Your task to perform on an android device: Open the Play Movies app and select the watchlist tab. Image 0: 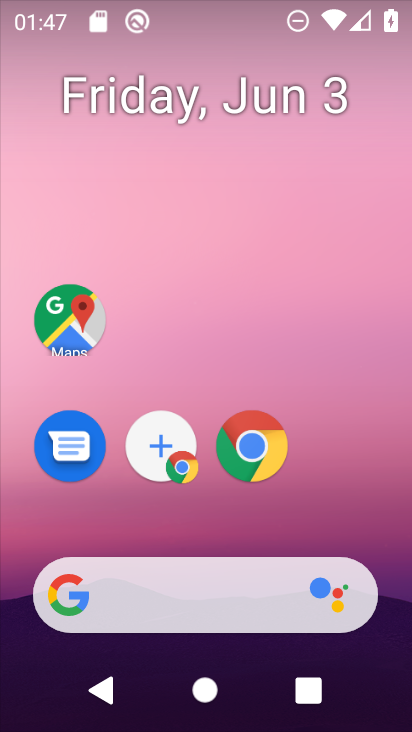
Step 0: drag from (252, 215) to (252, 105)
Your task to perform on an android device: Open the Play Movies app and select the watchlist tab. Image 1: 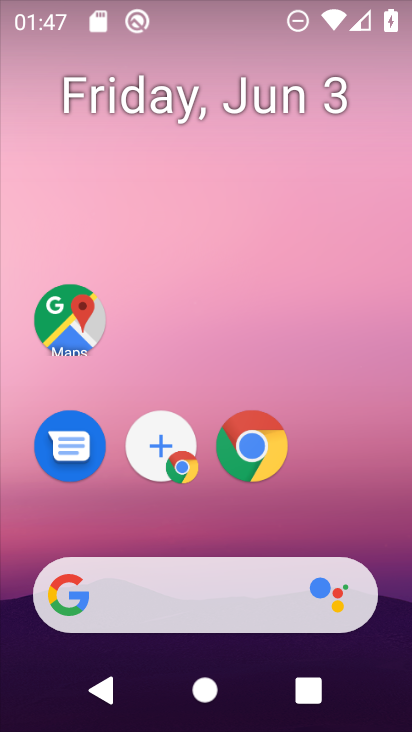
Step 1: drag from (246, 702) to (332, 53)
Your task to perform on an android device: Open the Play Movies app and select the watchlist tab. Image 2: 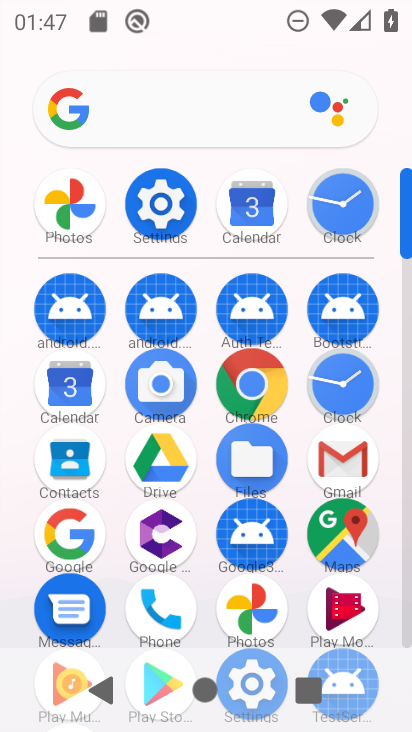
Step 2: click (344, 607)
Your task to perform on an android device: Open the Play Movies app and select the watchlist tab. Image 3: 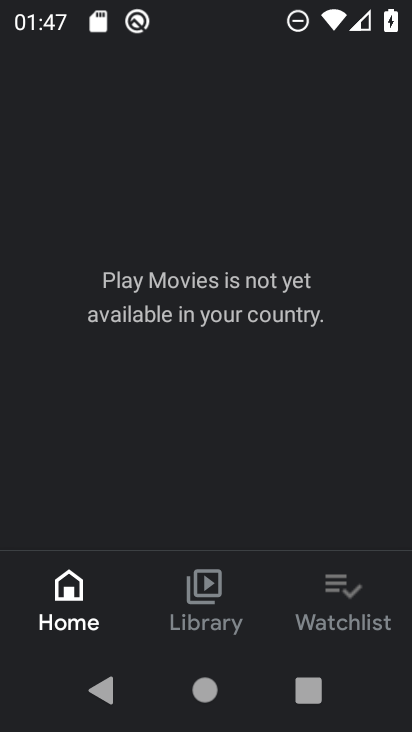
Step 3: click (358, 599)
Your task to perform on an android device: Open the Play Movies app and select the watchlist tab. Image 4: 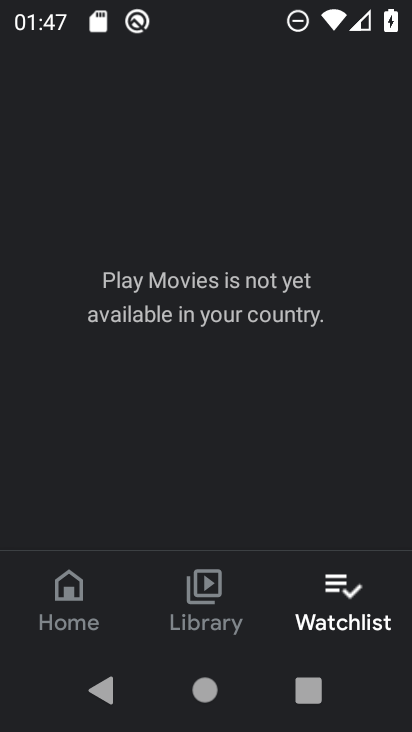
Step 4: task complete